Your task to perform on an android device: Go to Amazon Image 0: 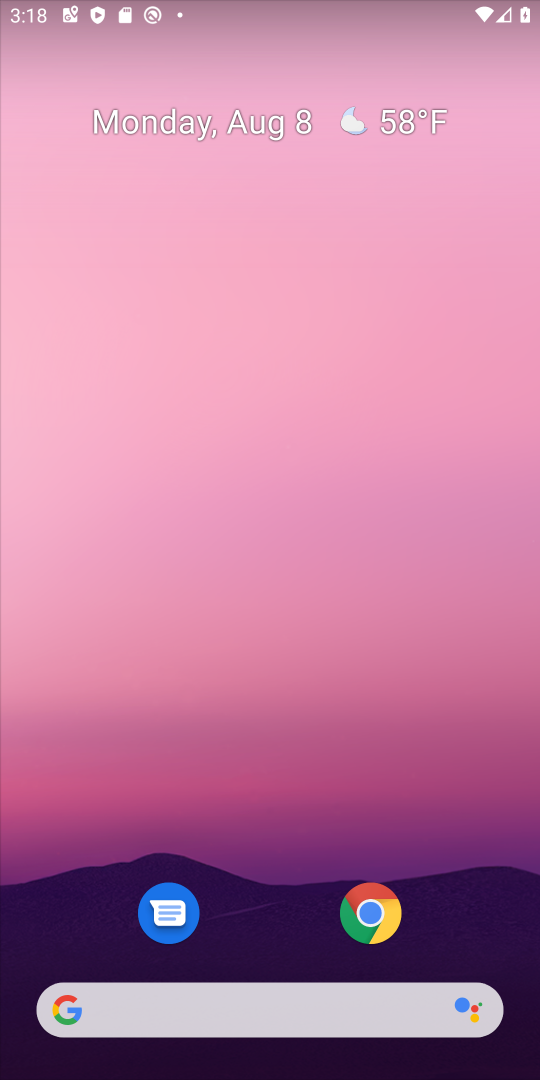
Step 0: press home button
Your task to perform on an android device: Go to Amazon Image 1: 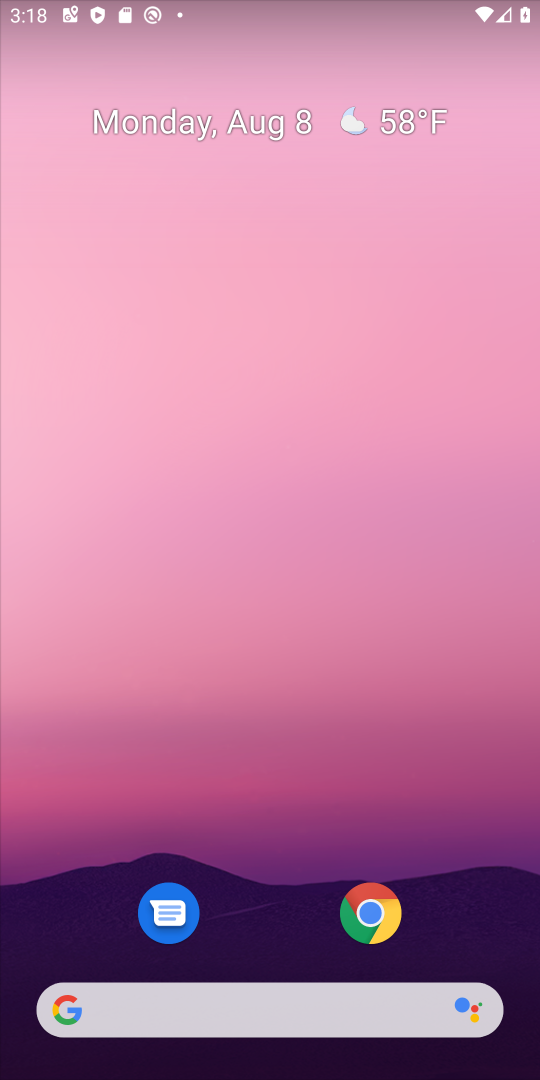
Step 1: drag from (267, 944) to (382, 292)
Your task to perform on an android device: Go to Amazon Image 2: 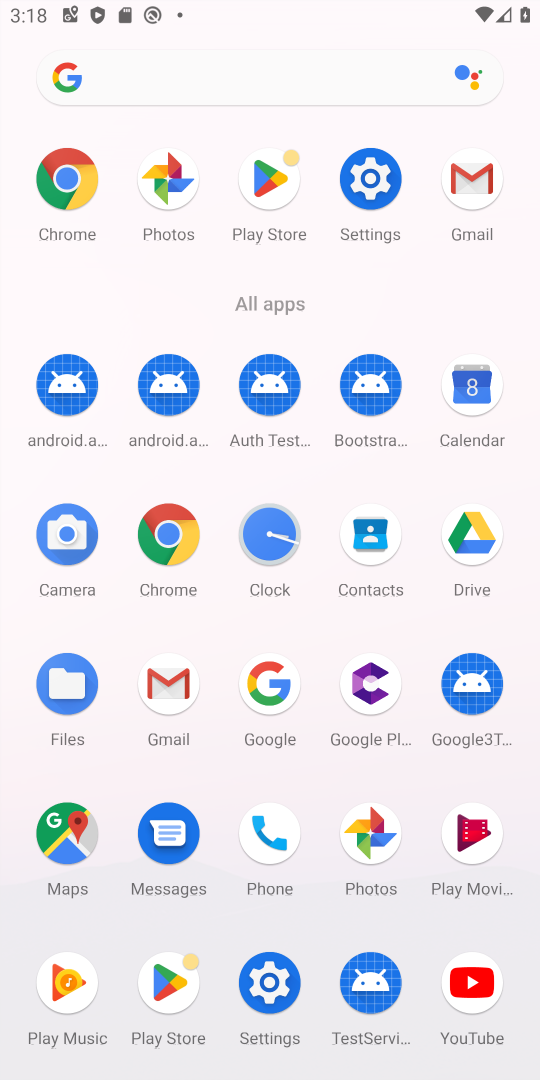
Step 2: click (165, 536)
Your task to perform on an android device: Go to Amazon Image 3: 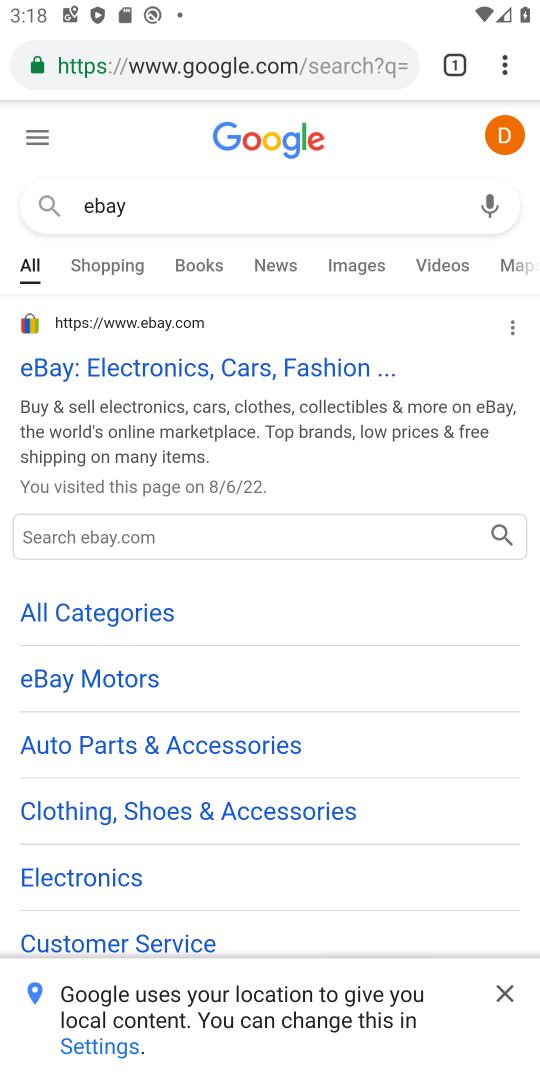
Step 3: click (342, 63)
Your task to perform on an android device: Go to Amazon Image 4: 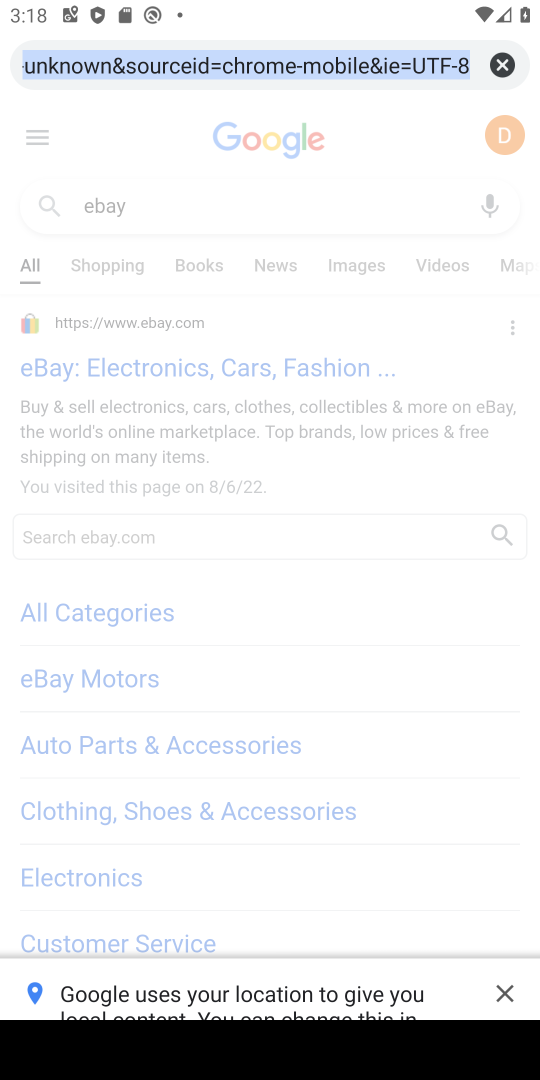
Step 4: type "amazon"
Your task to perform on an android device: Go to Amazon Image 5: 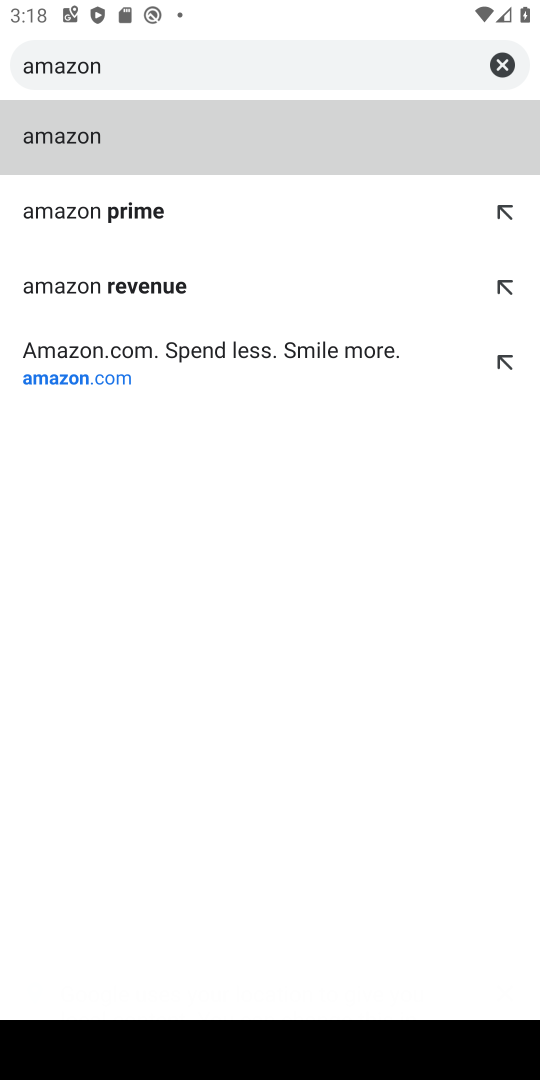
Step 5: click (338, 137)
Your task to perform on an android device: Go to Amazon Image 6: 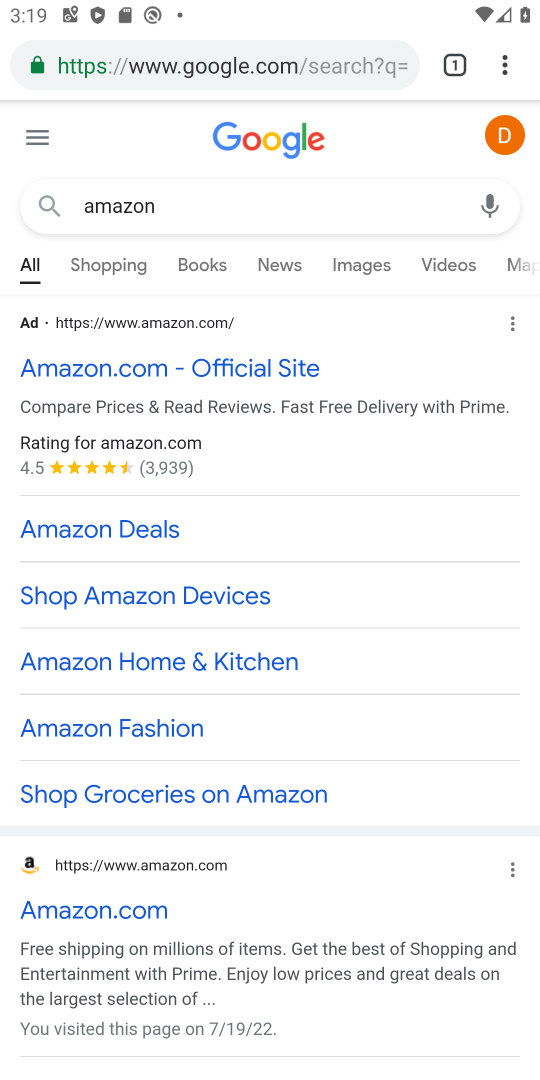
Step 6: task complete